Your task to perform on an android device: visit the assistant section in the google photos Image 0: 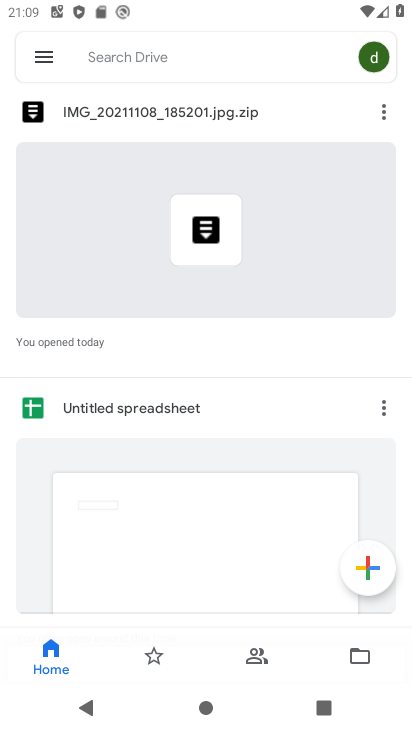
Step 0: press home button
Your task to perform on an android device: visit the assistant section in the google photos Image 1: 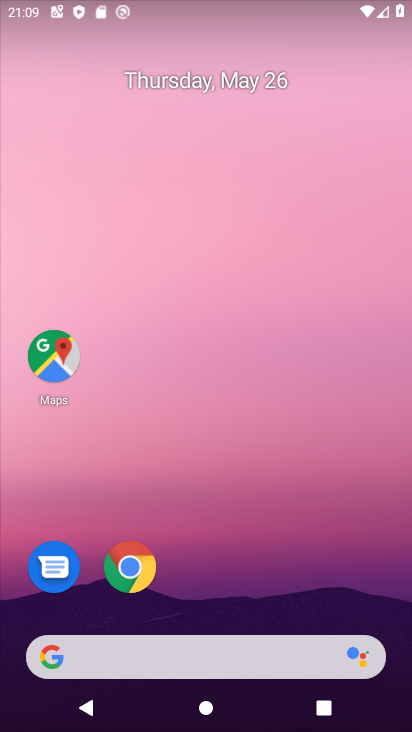
Step 1: drag from (250, 580) to (237, 119)
Your task to perform on an android device: visit the assistant section in the google photos Image 2: 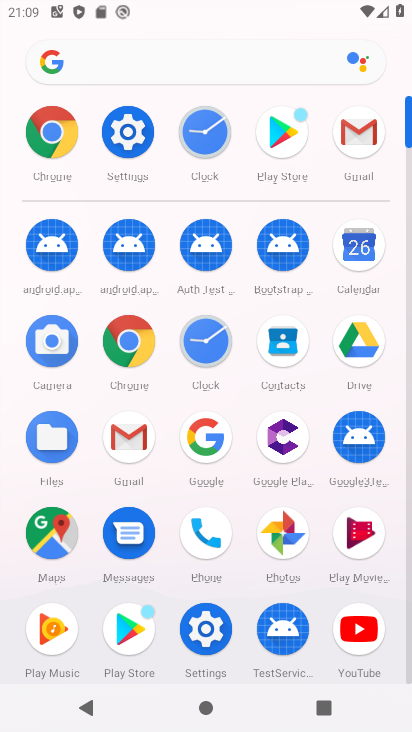
Step 2: click (276, 525)
Your task to perform on an android device: visit the assistant section in the google photos Image 3: 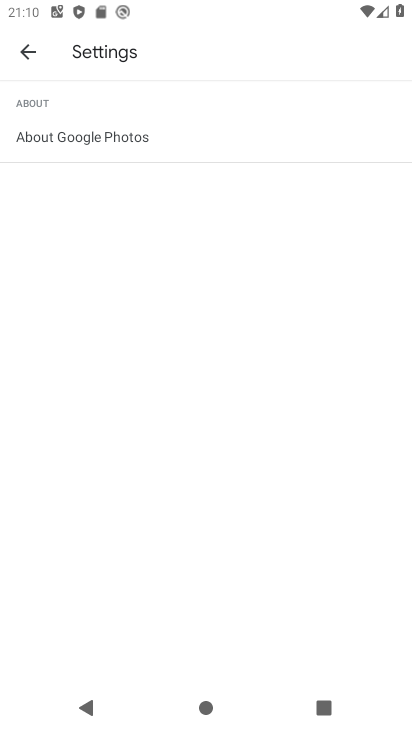
Step 3: click (29, 50)
Your task to perform on an android device: visit the assistant section in the google photos Image 4: 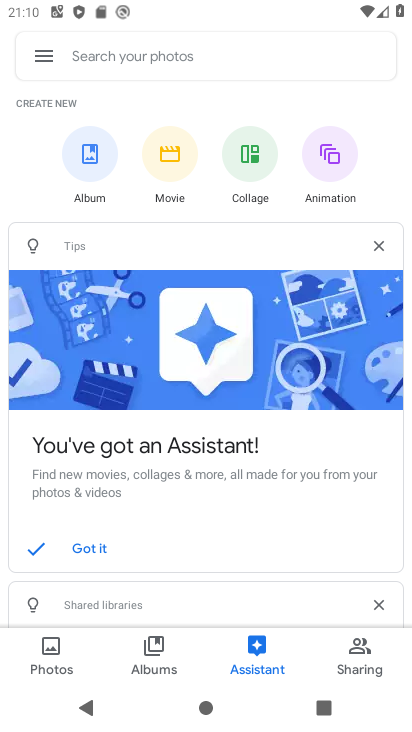
Step 4: task complete